Your task to perform on an android device: Go to calendar. Show me events next week Image 0: 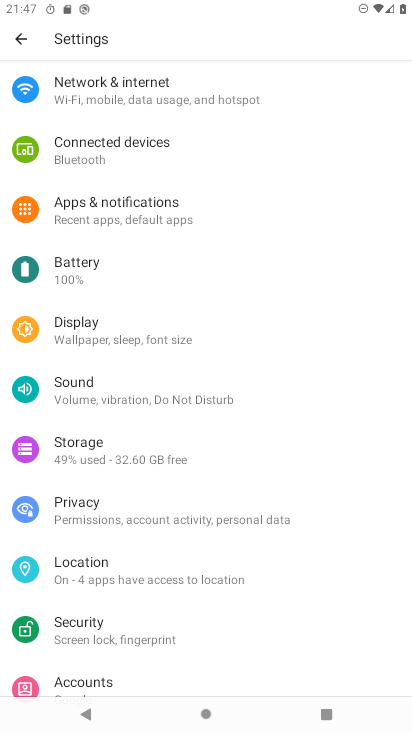
Step 0: press home button
Your task to perform on an android device: Go to calendar. Show me events next week Image 1: 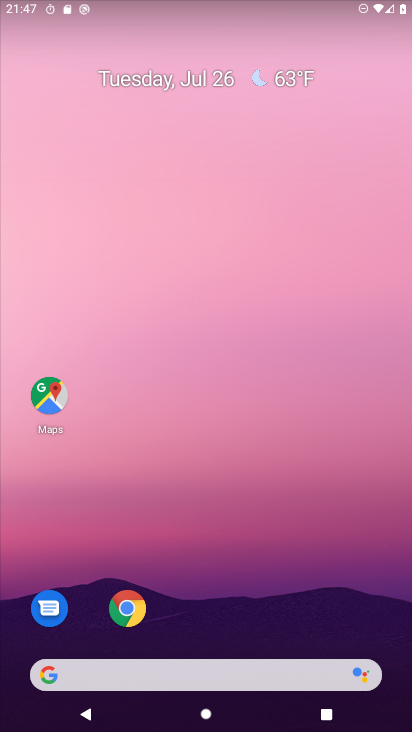
Step 1: drag from (72, 674) to (215, 203)
Your task to perform on an android device: Go to calendar. Show me events next week Image 2: 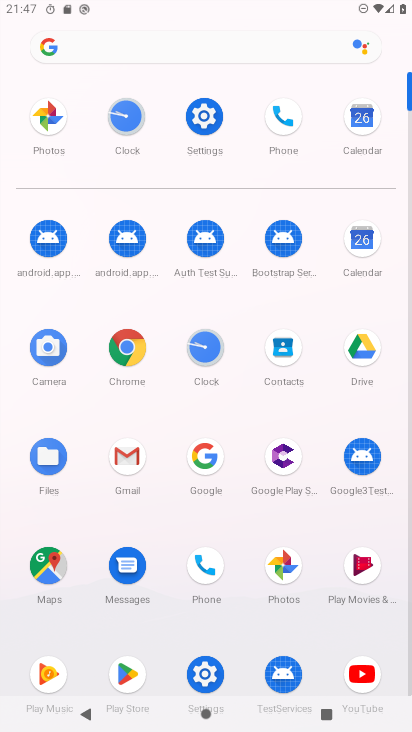
Step 2: click (355, 243)
Your task to perform on an android device: Go to calendar. Show me events next week Image 3: 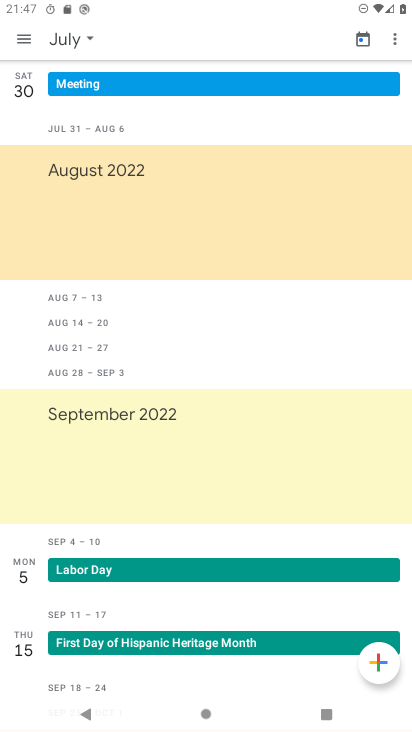
Step 3: click (90, 42)
Your task to perform on an android device: Go to calendar. Show me events next week Image 4: 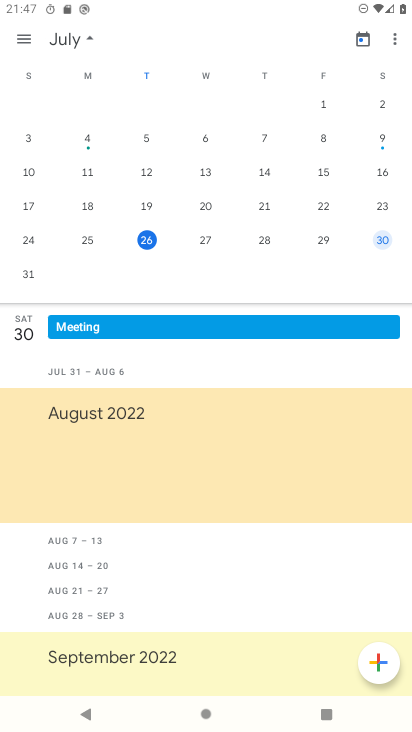
Step 4: task complete